Your task to perform on an android device: Open accessibility settings Image 0: 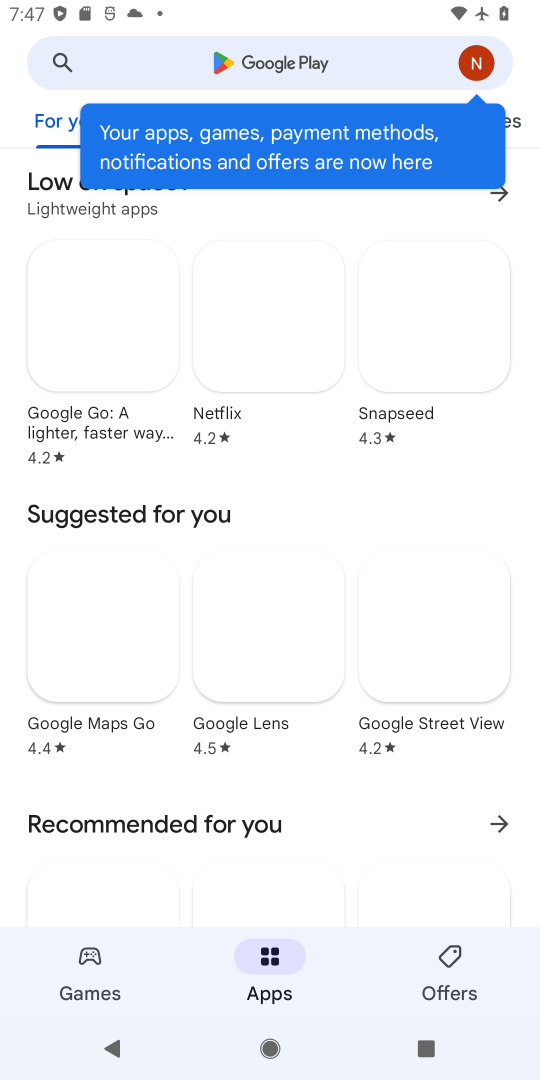
Step 0: press home button
Your task to perform on an android device: Open accessibility settings Image 1: 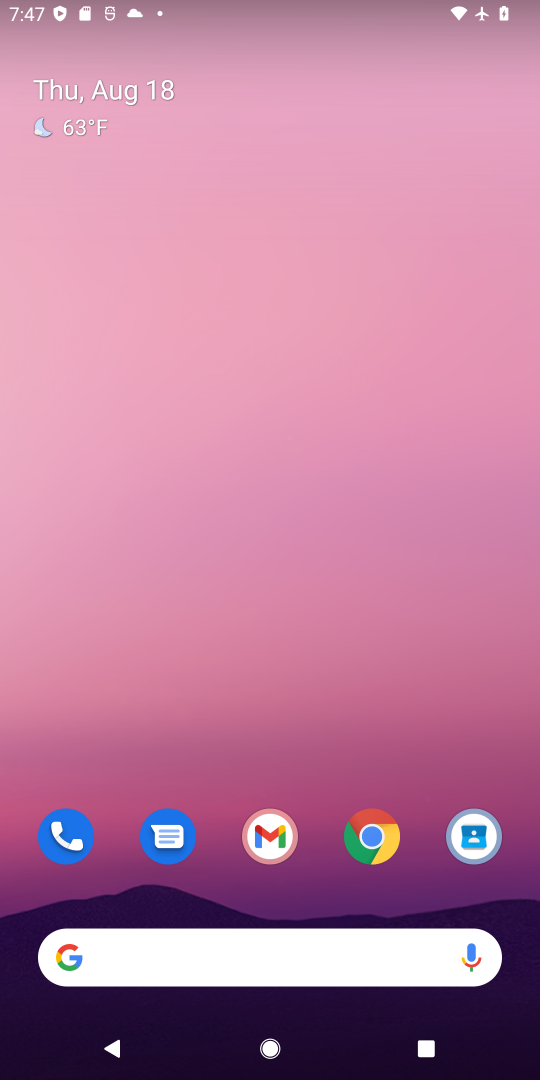
Step 1: drag from (313, 758) to (312, 186)
Your task to perform on an android device: Open accessibility settings Image 2: 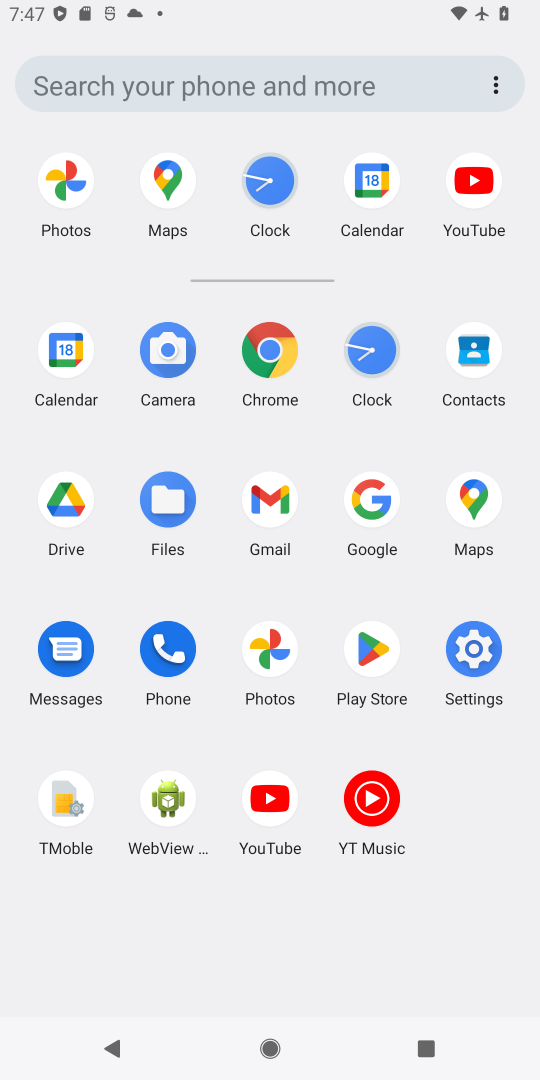
Step 2: click (471, 642)
Your task to perform on an android device: Open accessibility settings Image 3: 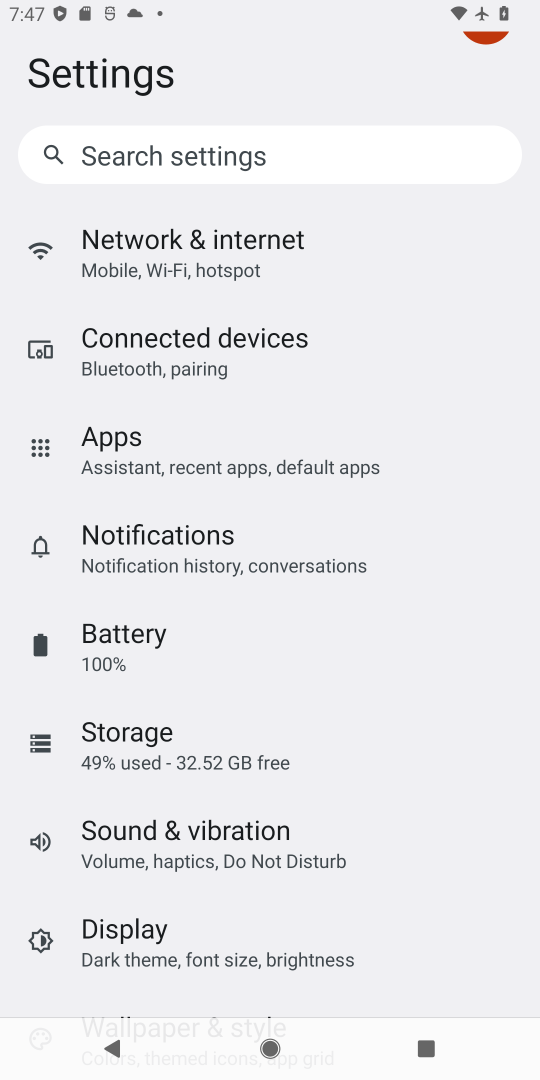
Step 3: drag from (382, 826) to (337, 188)
Your task to perform on an android device: Open accessibility settings Image 4: 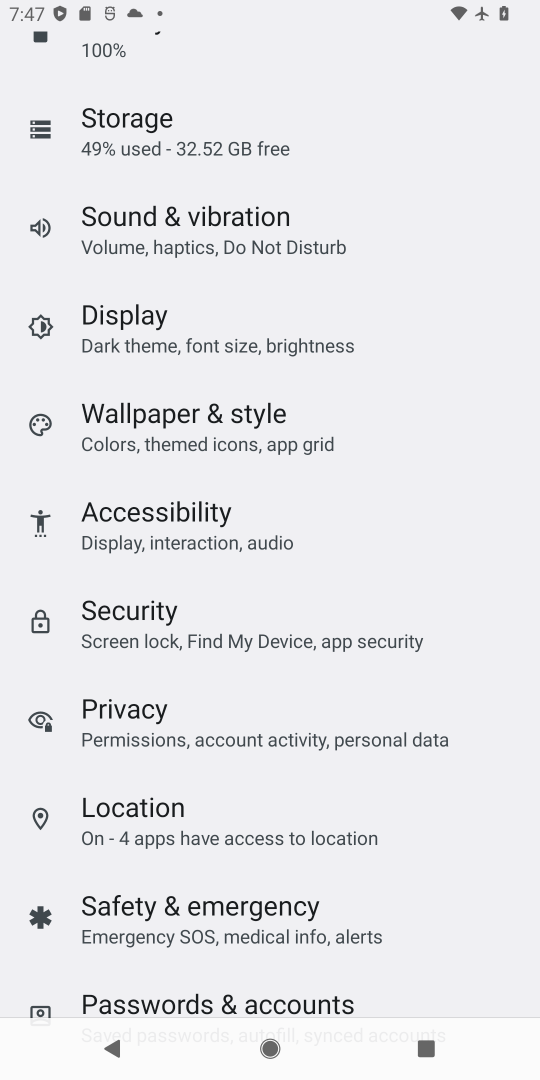
Step 4: click (235, 527)
Your task to perform on an android device: Open accessibility settings Image 5: 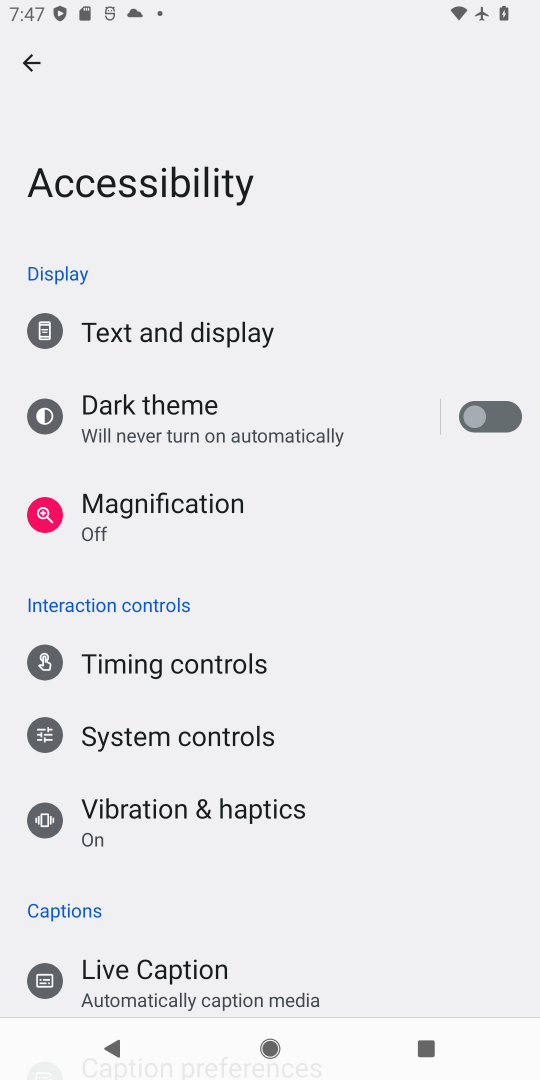
Step 5: task complete